Your task to perform on an android device: set default search engine in the chrome app Image 0: 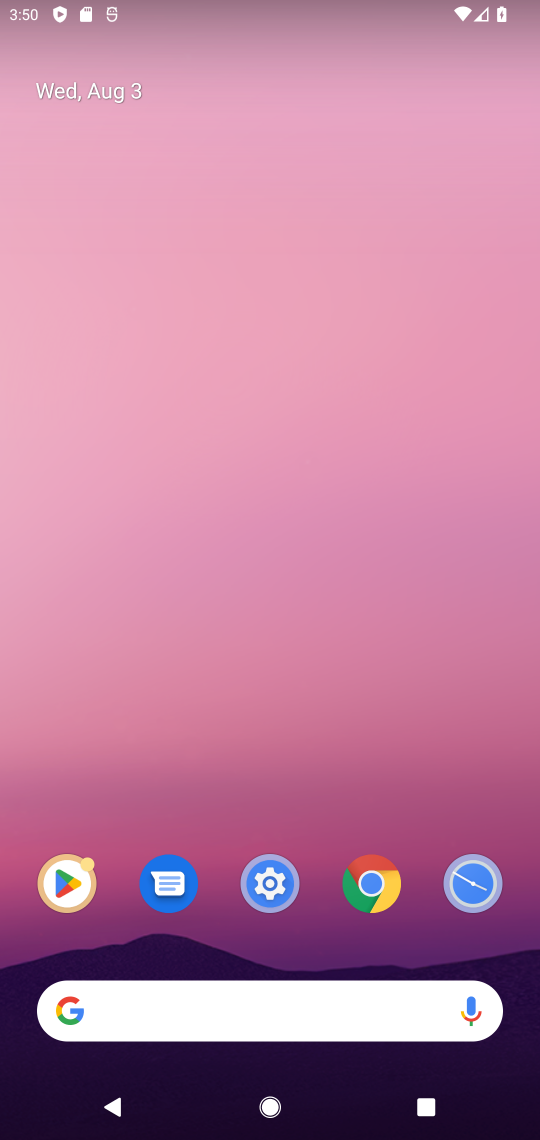
Step 0: click (269, 601)
Your task to perform on an android device: set default search engine in the chrome app Image 1: 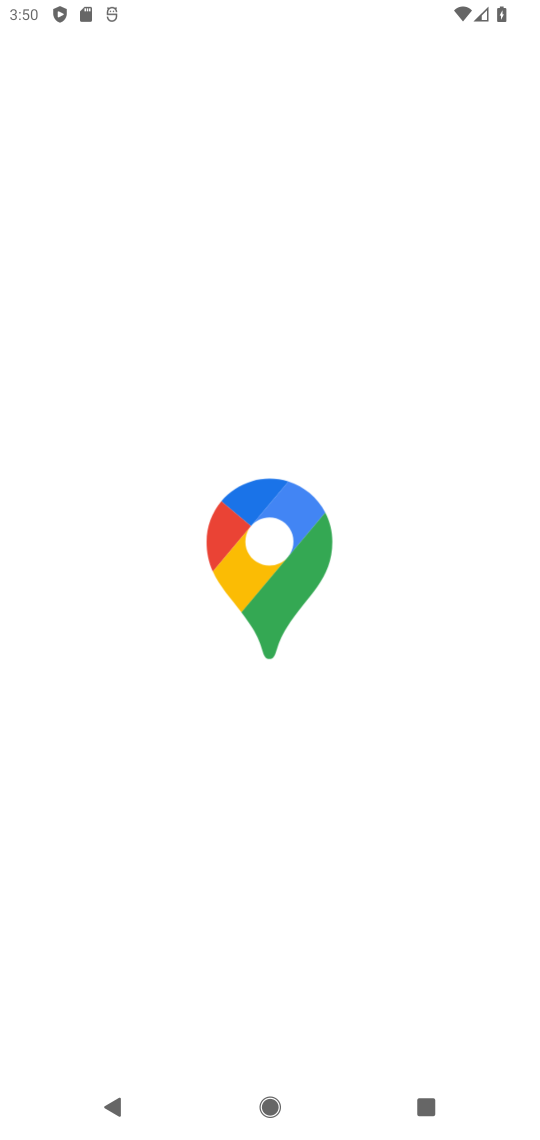
Step 1: press home button
Your task to perform on an android device: set default search engine in the chrome app Image 2: 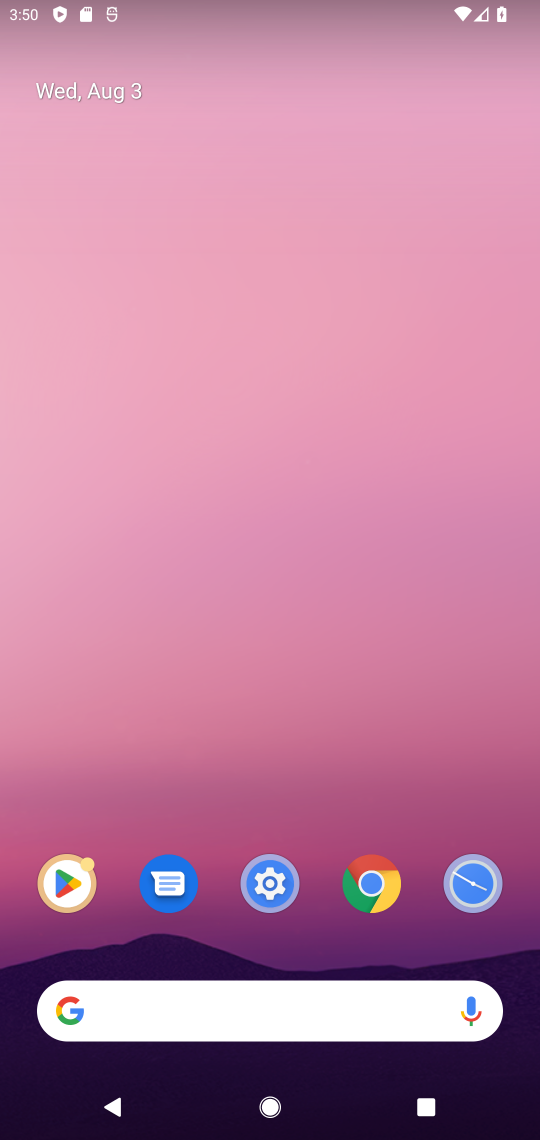
Step 2: click (357, 922)
Your task to perform on an android device: set default search engine in the chrome app Image 3: 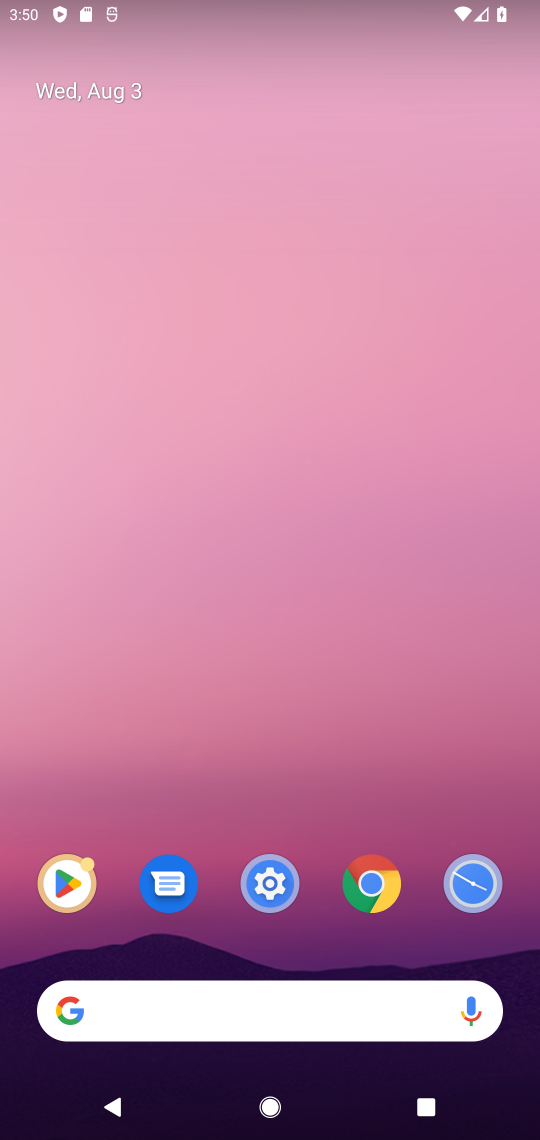
Step 3: click (370, 906)
Your task to perform on an android device: set default search engine in the chrome app Image 4: 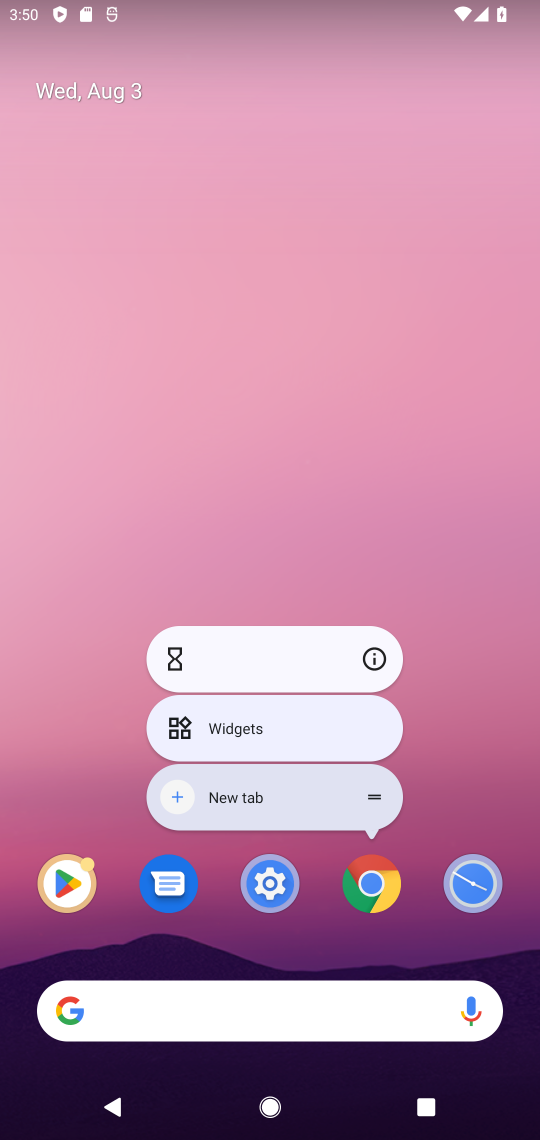
Step 4: click (381, 890)
Your task to perform on an android device: set default search engine in the chrome app Image 5: 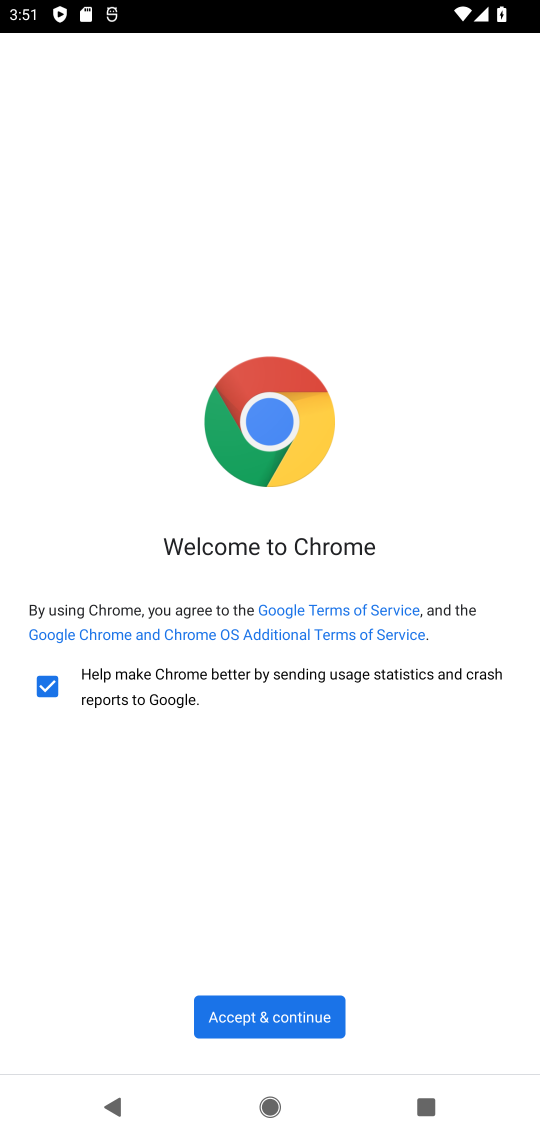
Step 5: click (301, 1017)
Your task to perform on an android device: set default search engine in the chrome app Image 6: 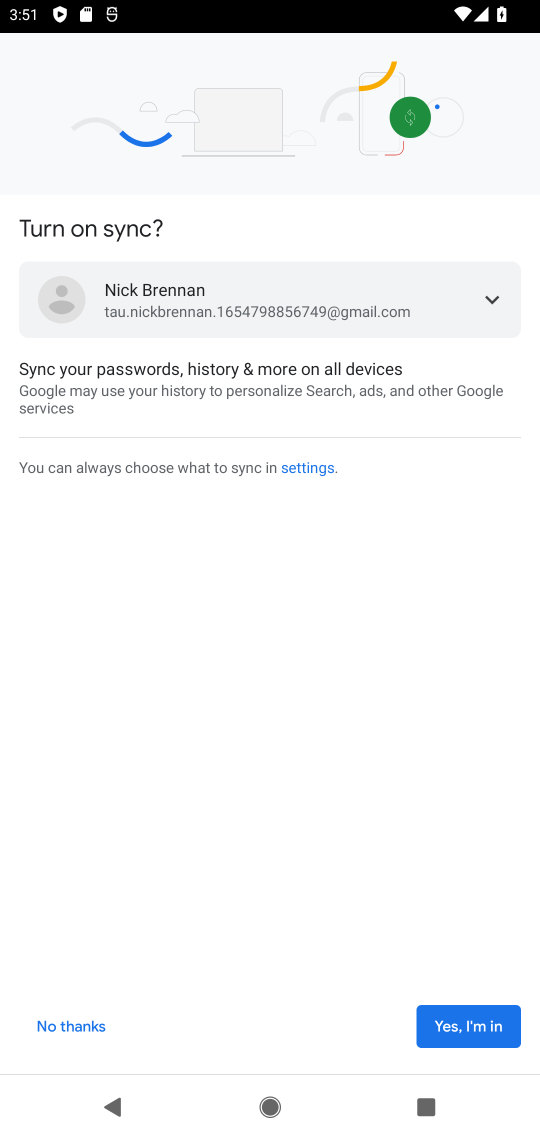
Step 6: click (478, 1027)
Your task to perform on an android device: set default search engine in the chrome app Image 7: 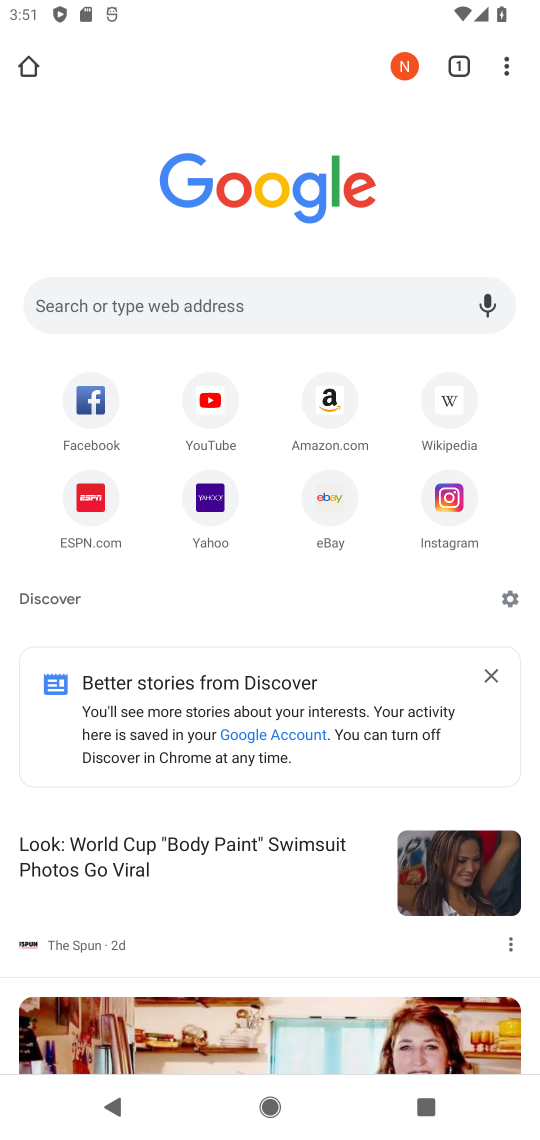
Step 7: click (510, 61)
Your task to perform on an android device: set default search engine in the chrome app Image 8: 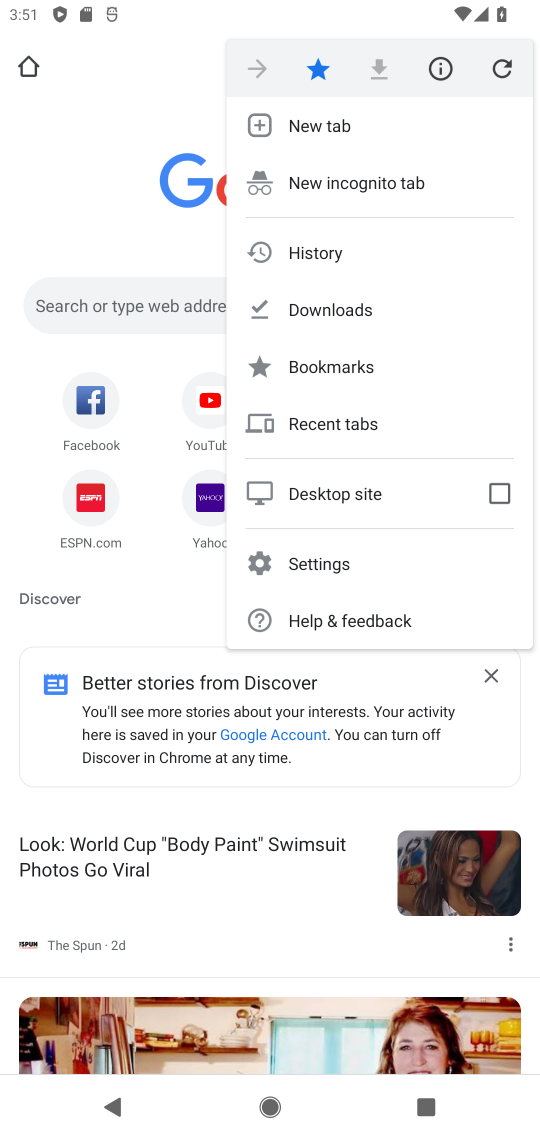
Step 8: click (333, 574)
Your task to perform on an android device: set default search engine in the chrome app Image 9: 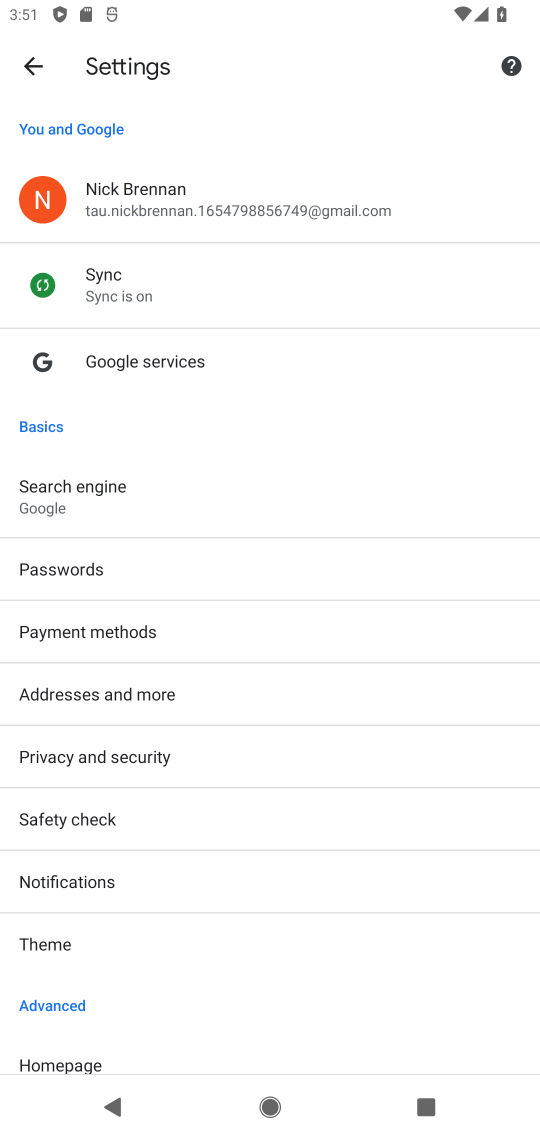
Step 9: click (108, 504)
Your task to perform on an android device: set default search engine in the chrome app Image 10: 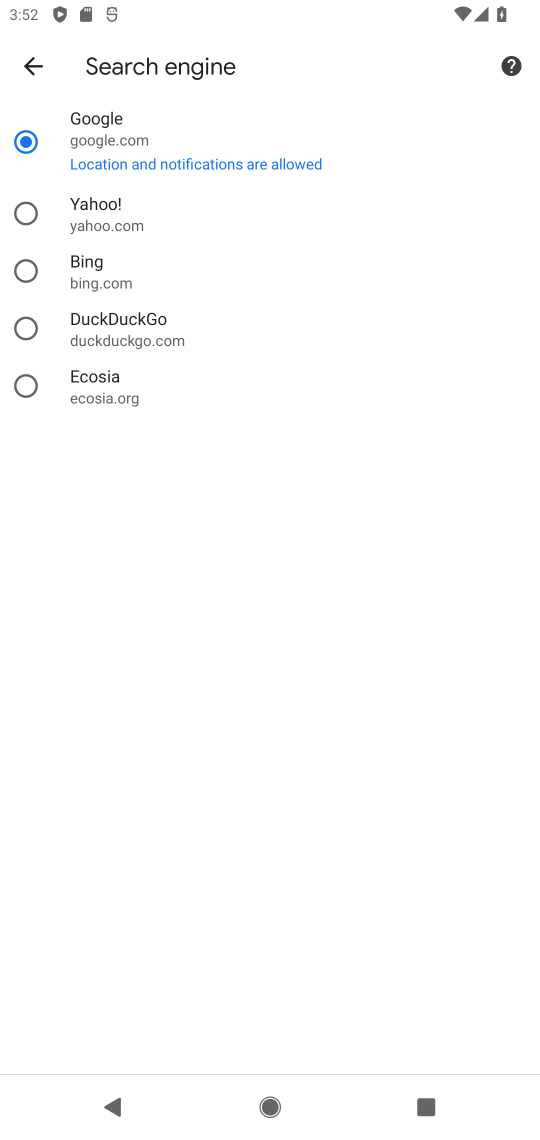
Step 10: task complete